Your task to perform on an android device: check google app version Image 0: 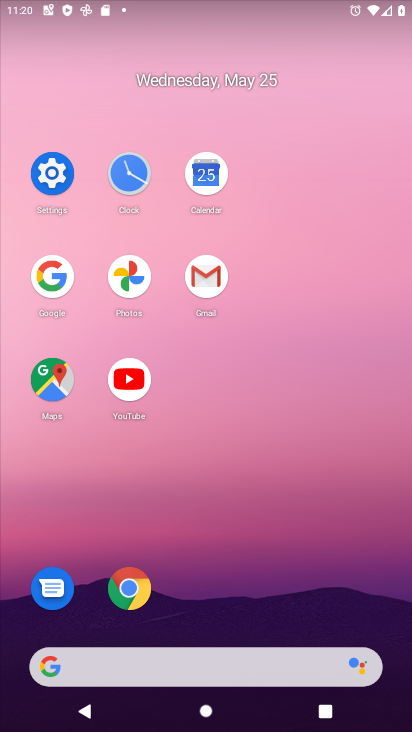
Step 0: click (58, 273)
Your task to perform on an android device: check google app version Image 1: 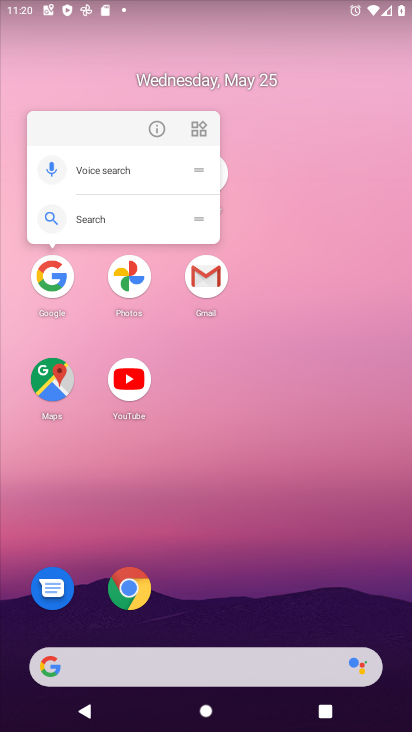
Step 1: click (164, 143)
Your task to perform on an android device: check google app version Image 2: 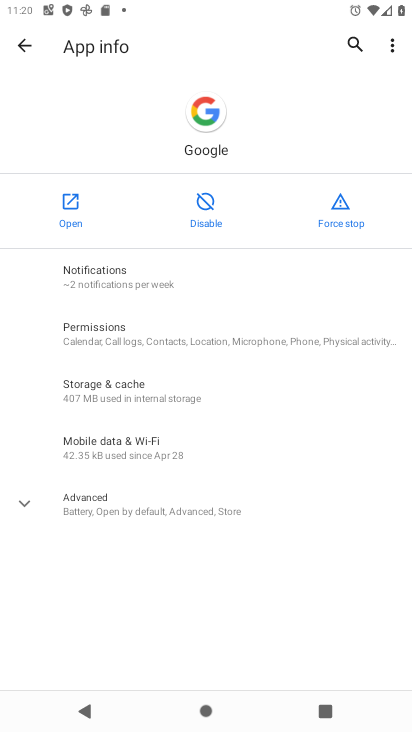
Step 2: click (197, 520)
Your task to perform on an android device: check google app version Image 3: 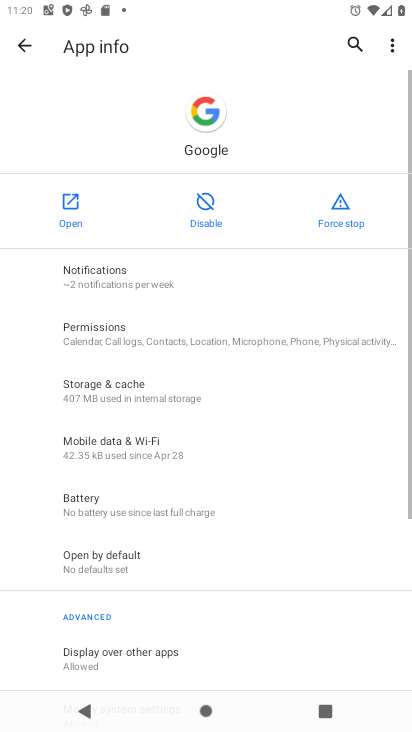
Step 3: task complete